Your task to perform on an android device: open app "Google Pay: Save, Pay, Manage" (install if not already installed) Image 0: 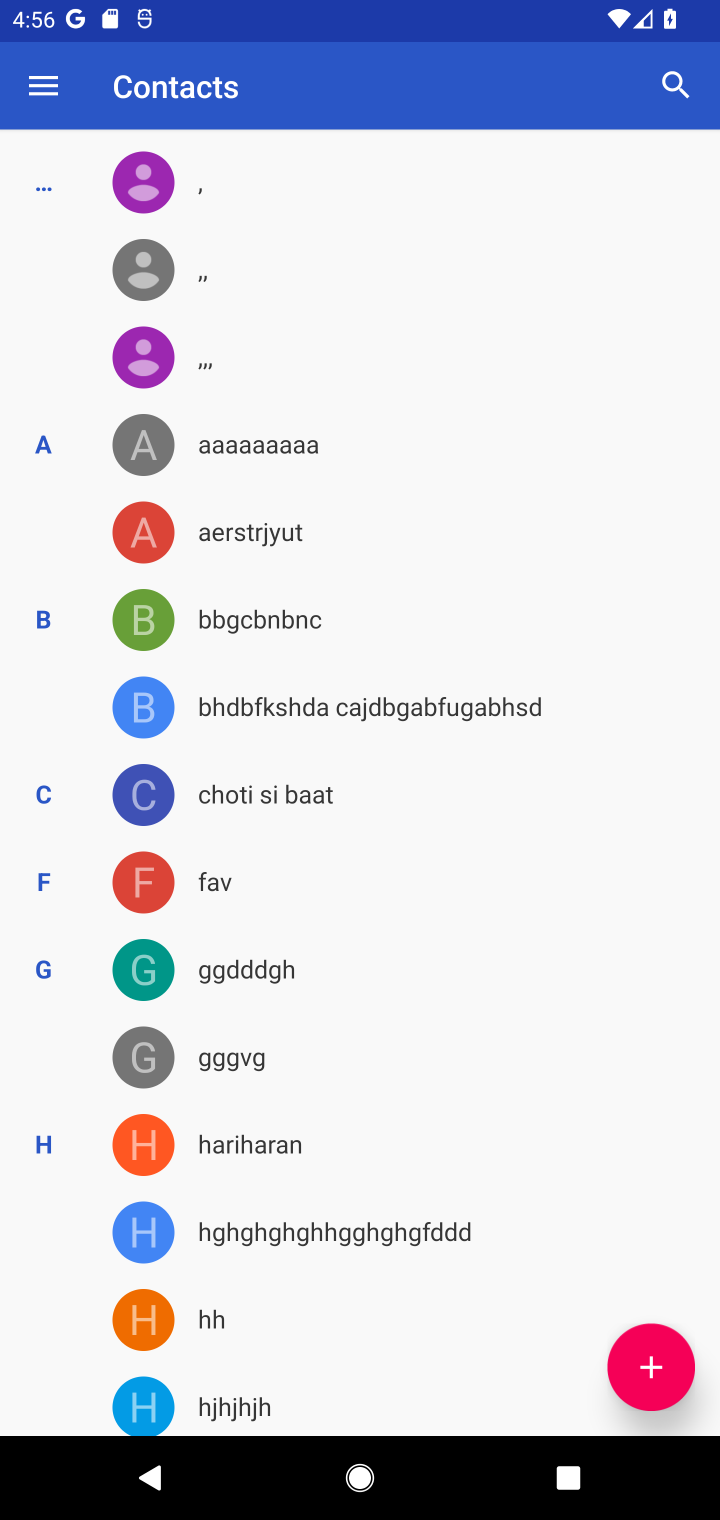
Step 0: press home button
Your task to perform on an android device: open app "Google Pay: Save, Pay, Manage" (install if not already installed) Image 1: 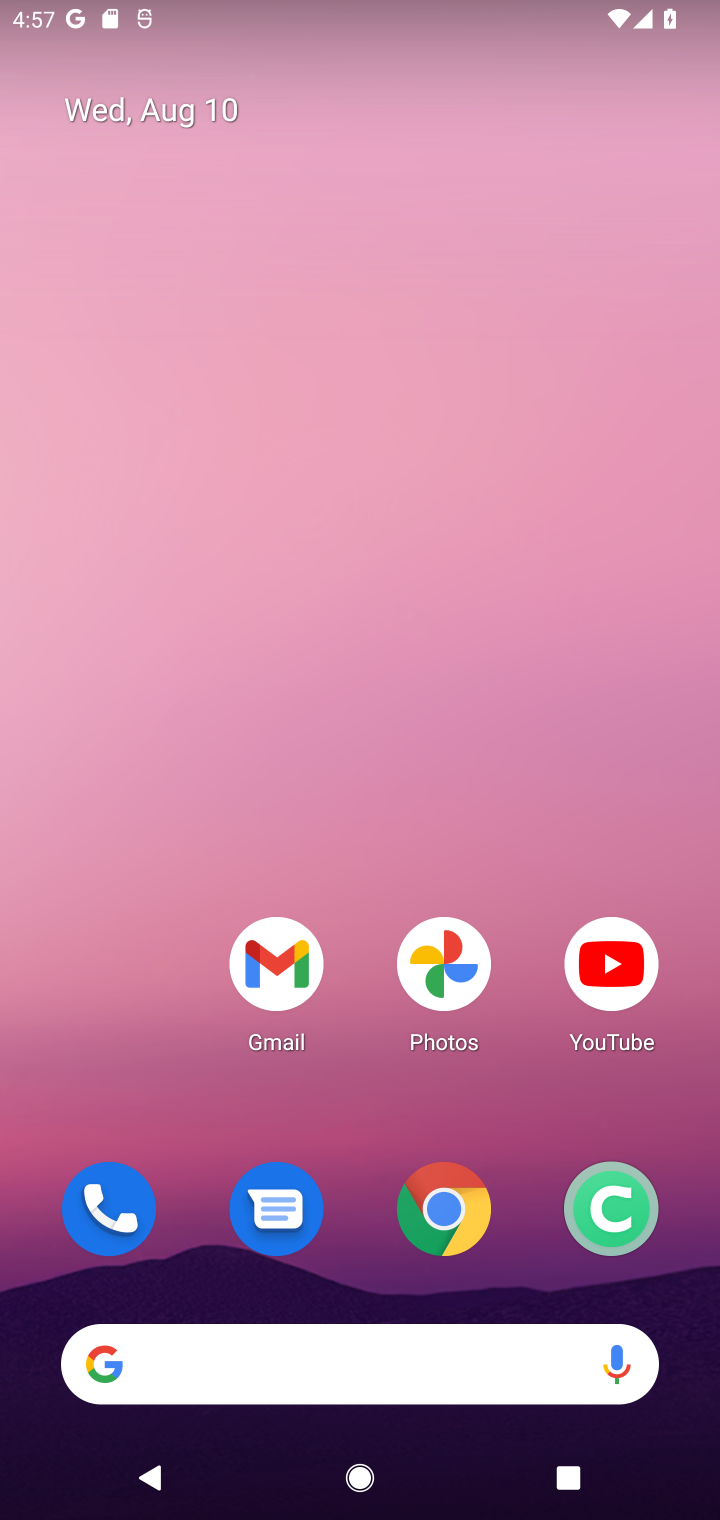
Step 1: drag from (348, 1283) to (371, 42)
Your task to perform on an android device: open app "Google Pay: Save, Pay, Manage" (install if not already installed) Image 2: 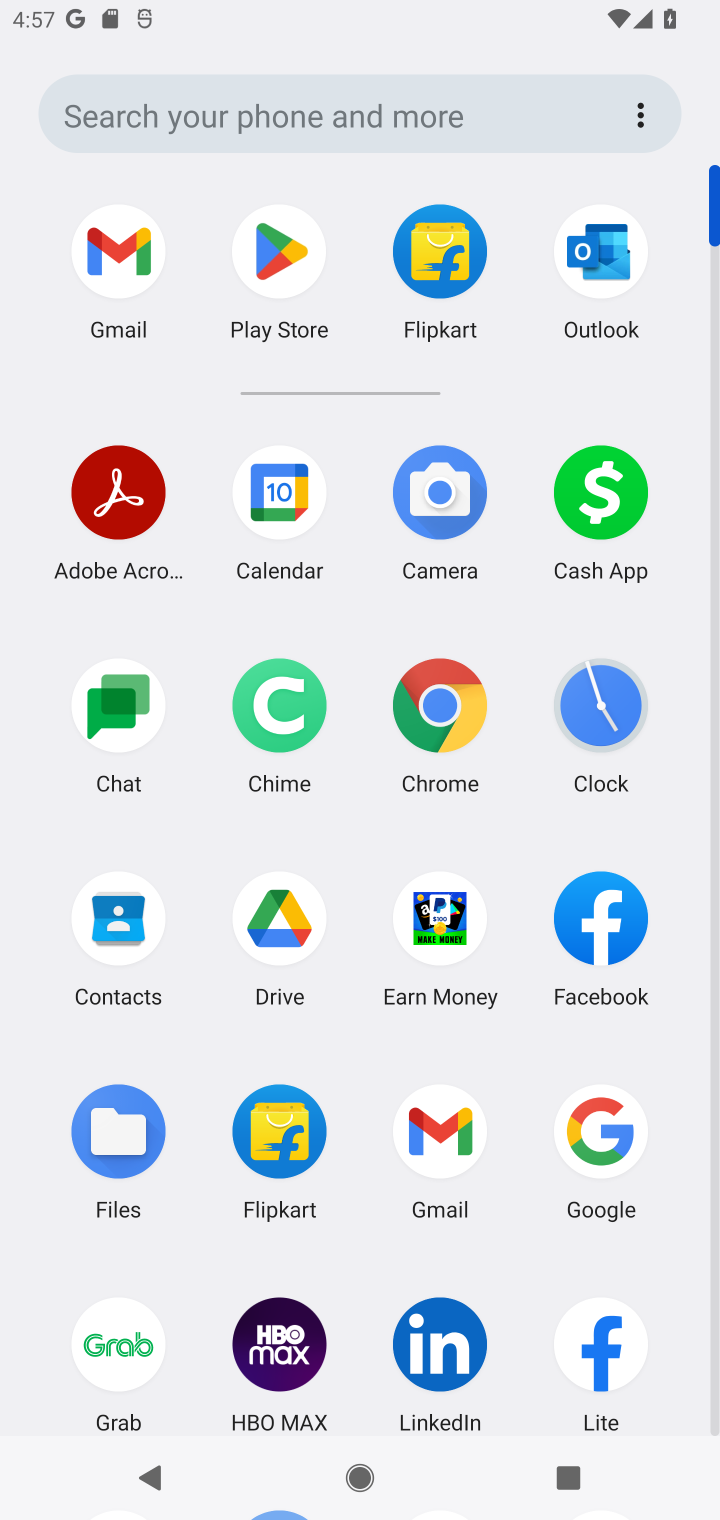
Step 2: click (307, 301)
Your task to perform on an android device: open app "Google Pay: Save, Pay, Manage" (install if not already installed) Image 3: 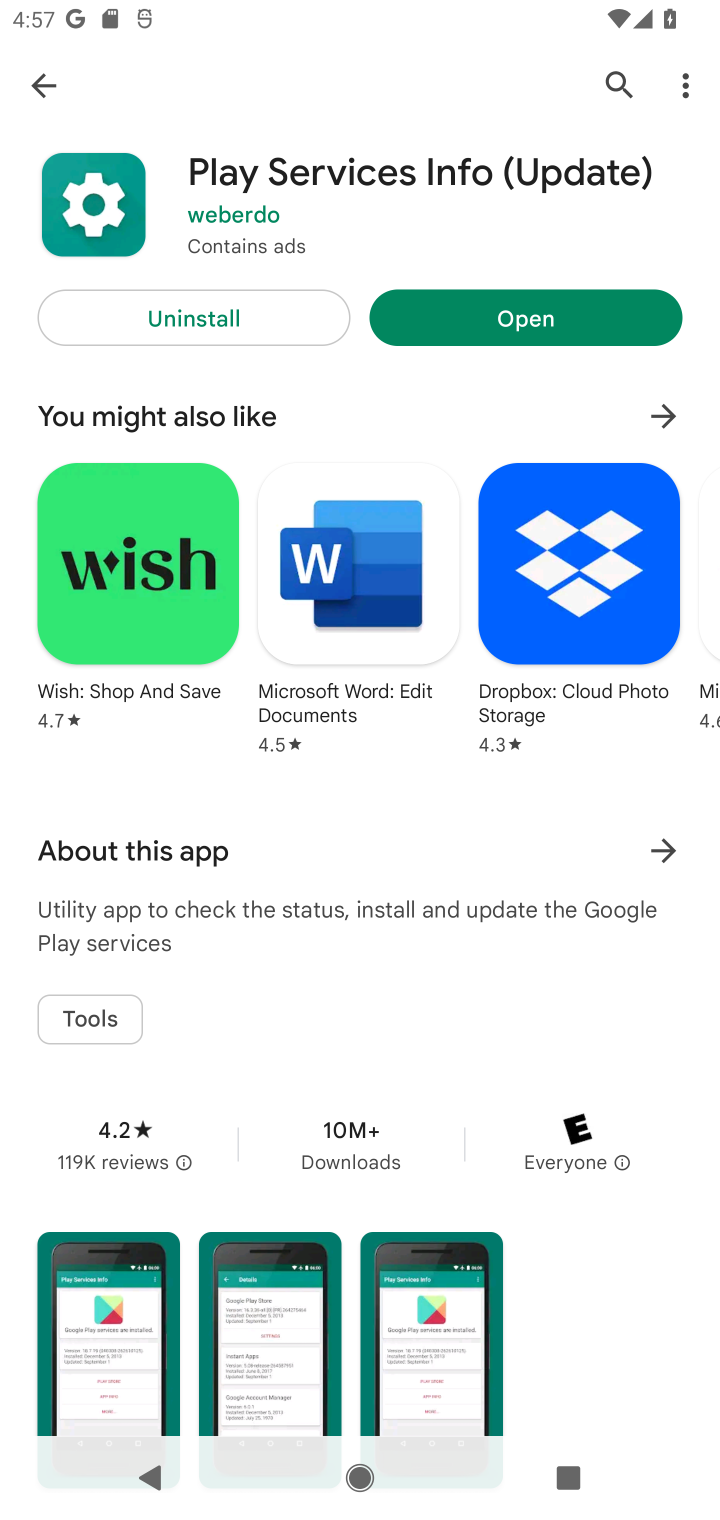
Step 3: click (589, 120)
Your task to perform on an android device: open app "Google Pay: Save, Pay, Manage" (install if not already installed) Image 4: 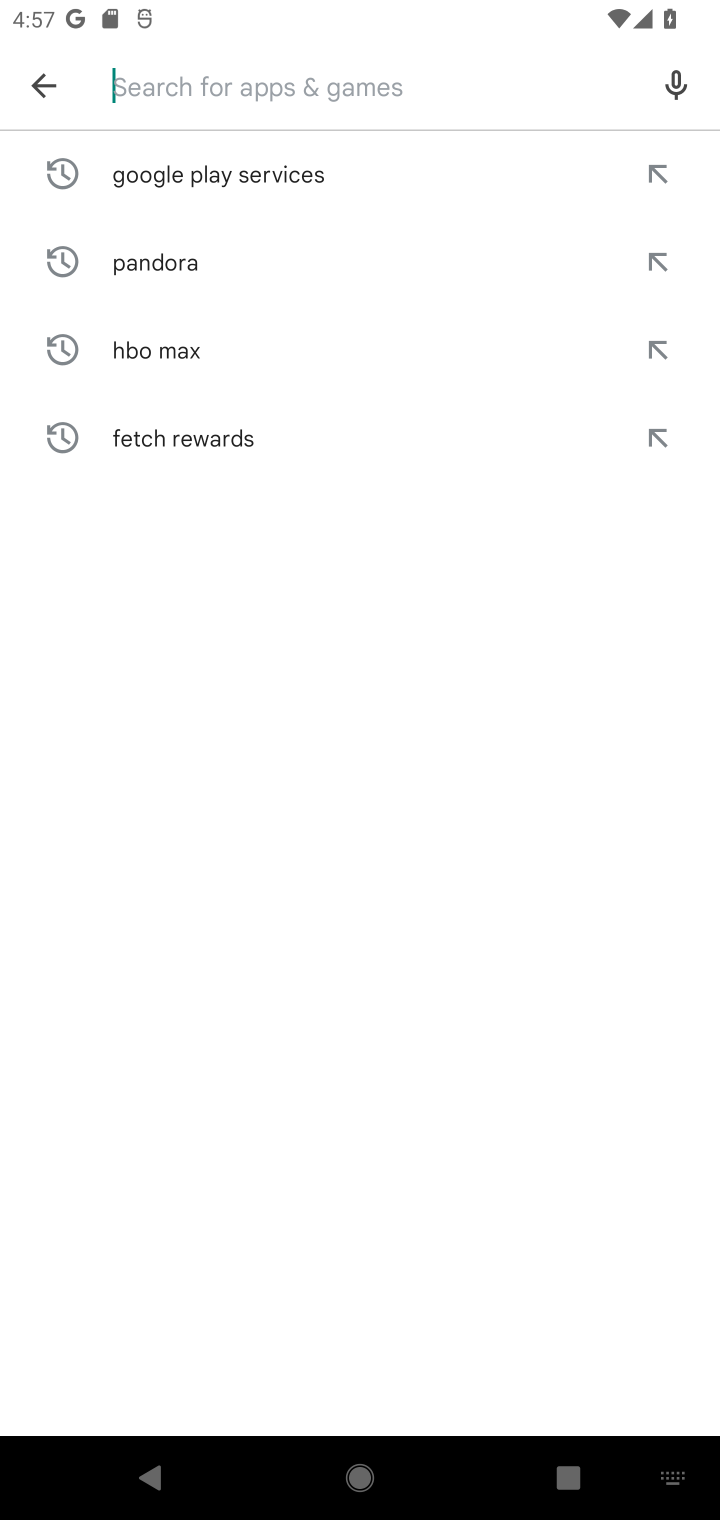
Step 4: type "google pay"
Your task to perform on an android device: open app "Google Pay: Save, Pay, Manage" (install if not already installed) Image 5: 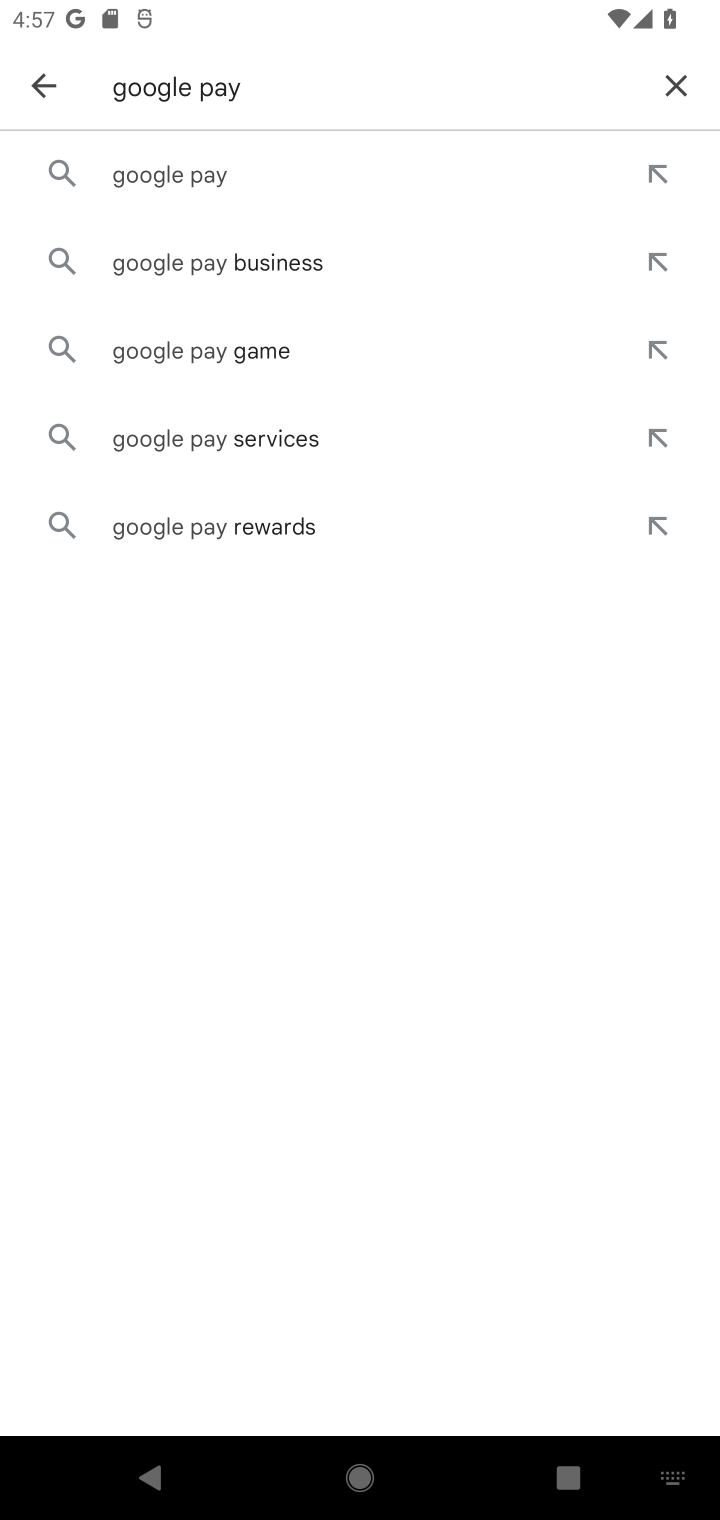
Step 5: click (282, 199)
Your task to perform on an android device: open app "Google Pay: Save, Pay, Manage" (install if not already installed) Image 6: 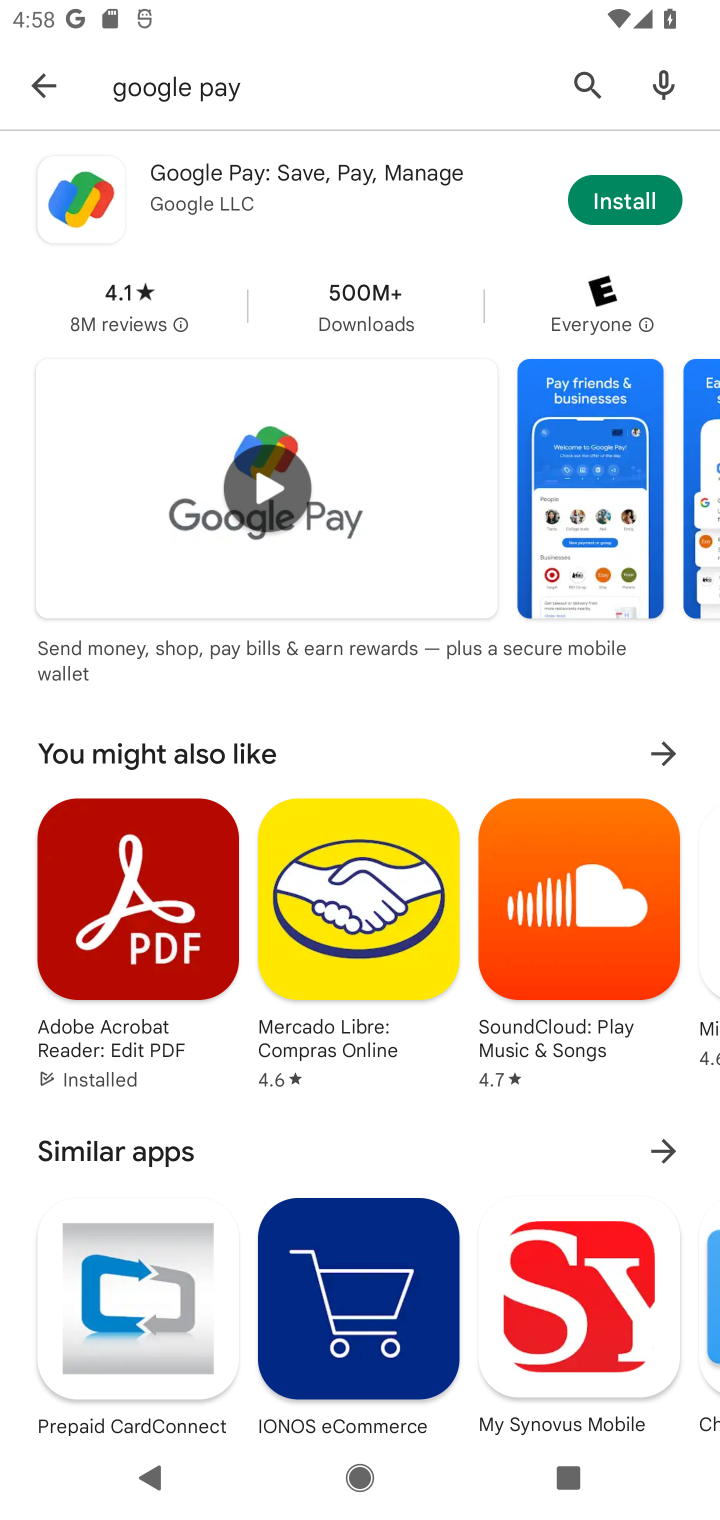
Step 6: click (576, 217)
Your task to perform on an android device: open app "Google Pay: Save, Pay, Manage" (install if not already installed) Image 7: 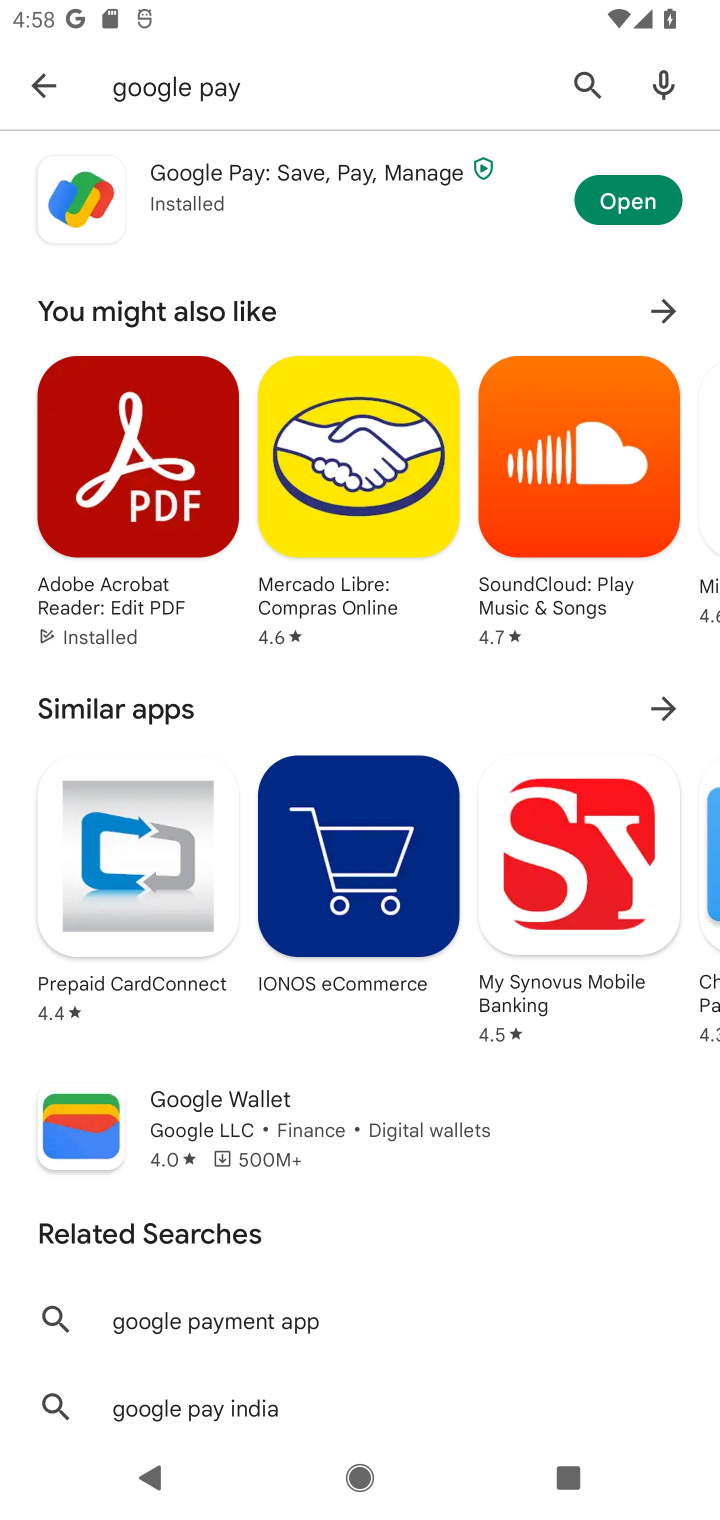
Step 7: click (644, 218)
Your task to perform on an android device: open app "Google Pay: Save, Pay, Manage" (install if not already installed) Image 8: 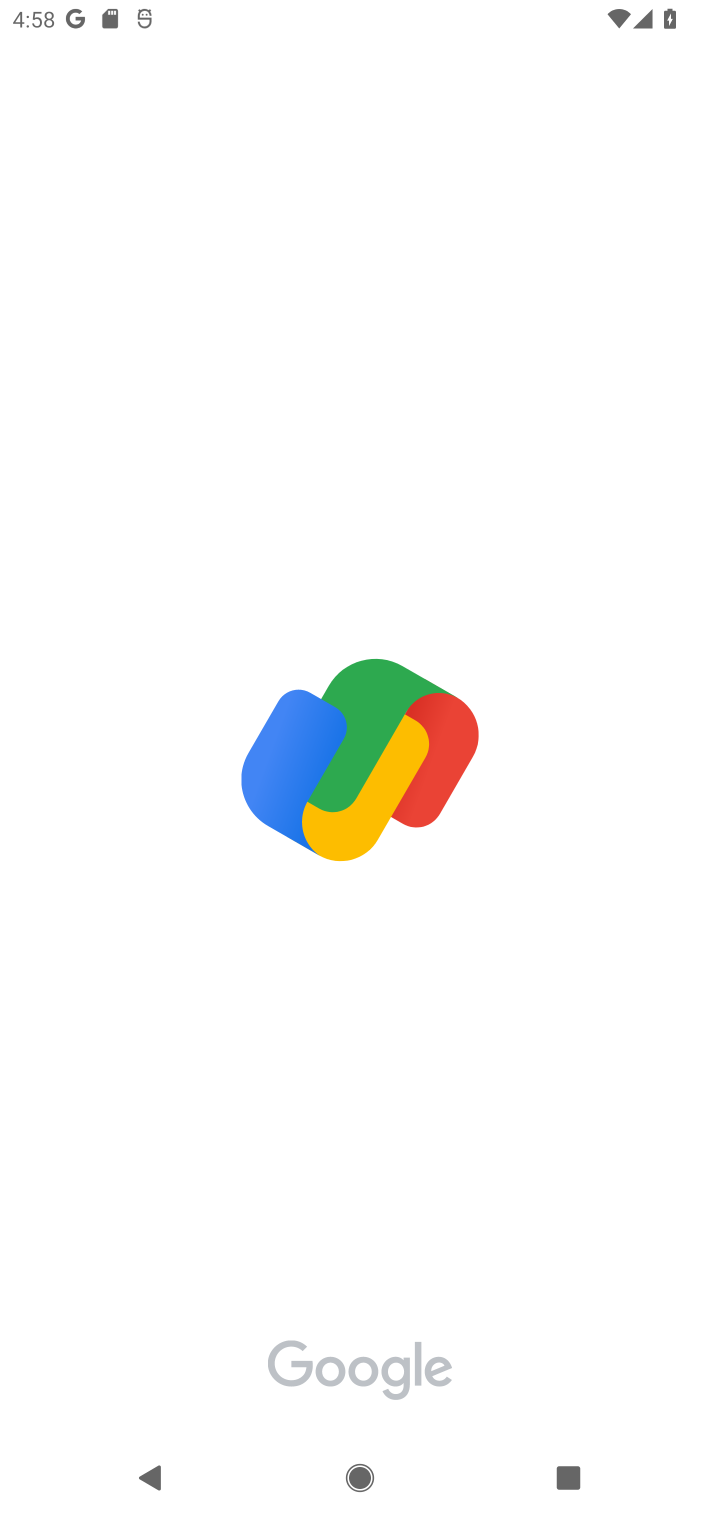
Step 8: task complete